Your task to perform on an android device: empty trash in the gmail app Image 0: 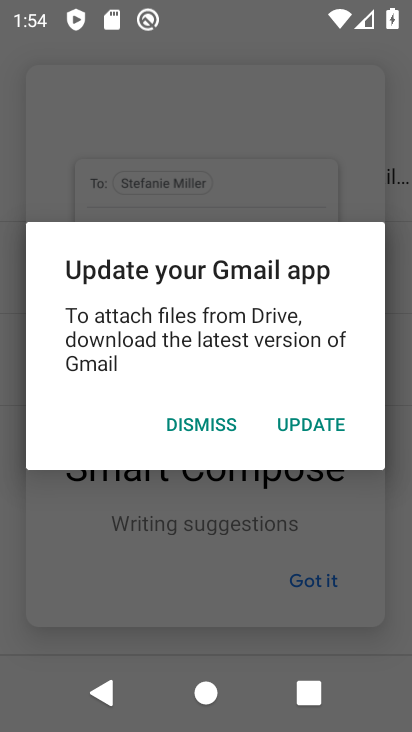
Step 0: press home button
Your task to perform on an android device: empty trash in the gmail app Image 1: 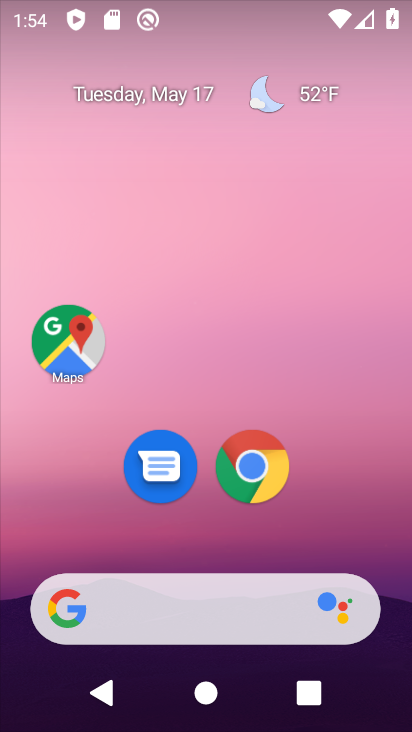
Step 1: drag from (119, 549) to (256, 0)
Your task to perform on an android device: empty trash in the gmail app Image 2: 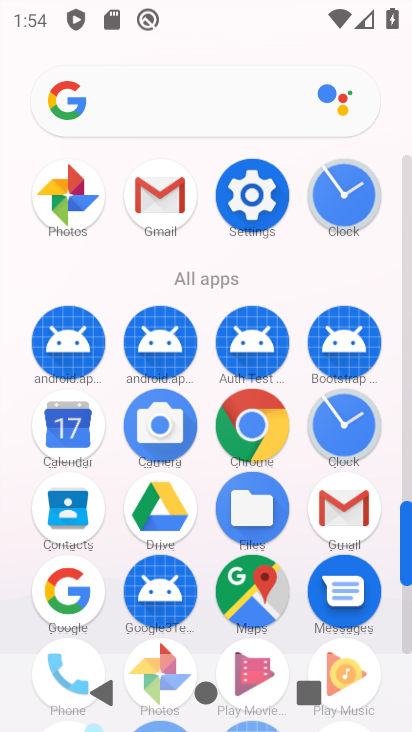
Step 2: click (163, 203)
Your task to perform on an android device: empty trash in the gmail app Image 3: 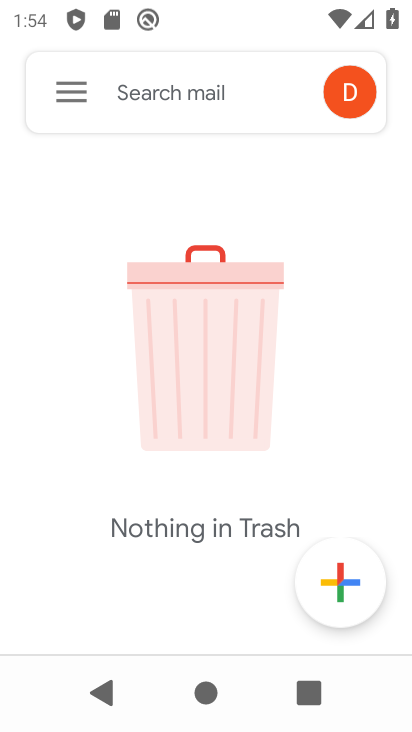
Step 3: click (95, 107)
Your task to perform on an android device: empty trash in the gmail app Image 4: 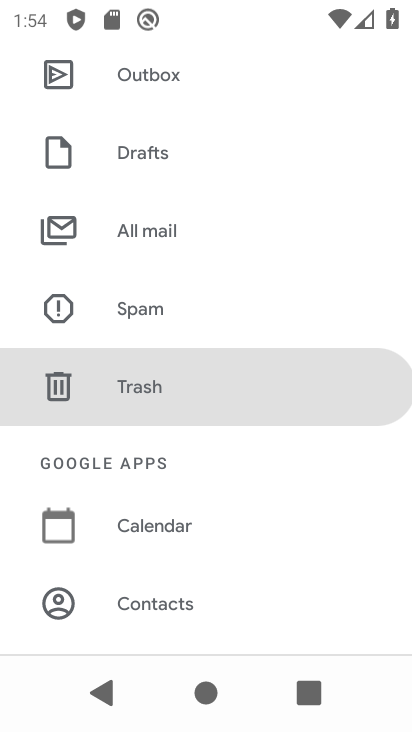
Step 4: click (236, 381)
Your task to perform on an android device: empty trash in the gmail app Image 5: 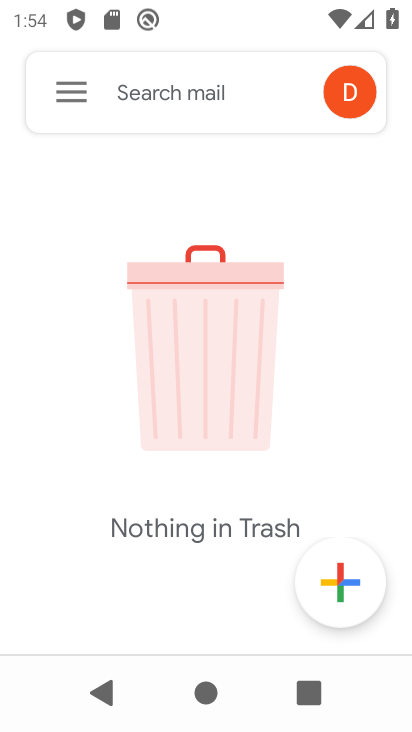
Step 5: task complete